Your task to perform on an android device: see tabs open on other devices in the chrome app Image 0: 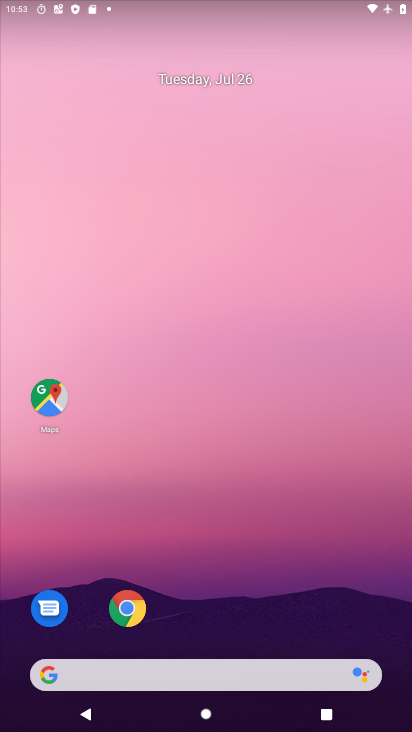
Step 0: click (136, 596)
Your task to perform on an android device: see tabs open on other devices in the chrome app Image 1: 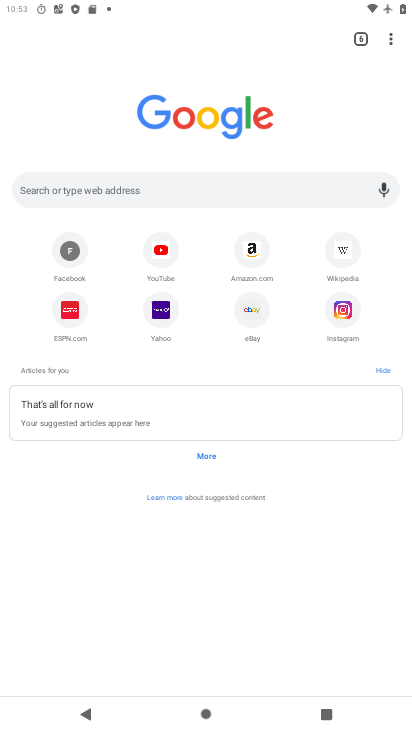
Step 1: click (385, 32)
Your task to perform on an android device: see tabs open on other devices in the chrome app Image 2: 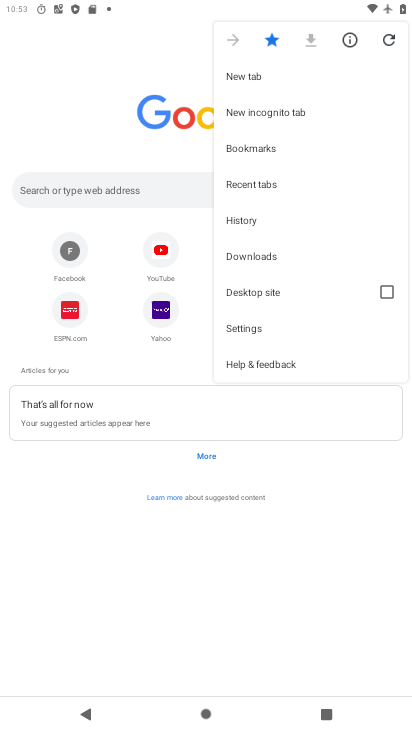
Step 2: click (273, 188)
Your task to perform on an android device: see tabs open on other devices in the chrome app Image 3: 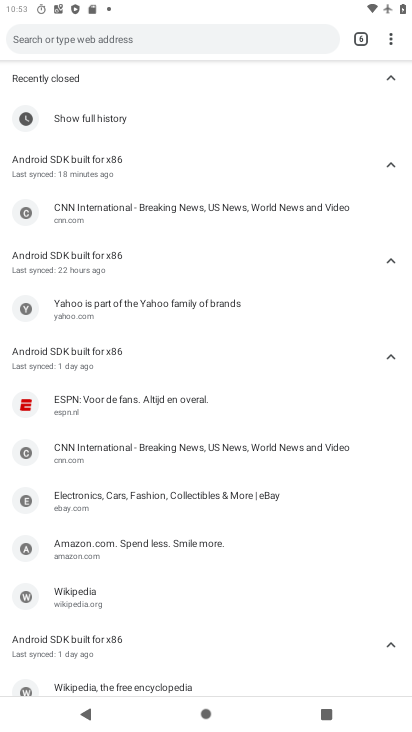
Step 3: task complete